Your task to perform on an android device: Open display settings Image 0: 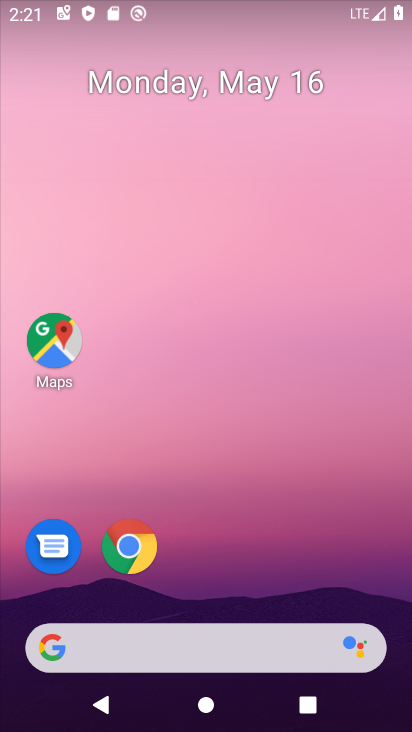
Step 0: drag from (241, 676) to (258, 349)
Your task to perform on an android device: Open display settings Image 1: 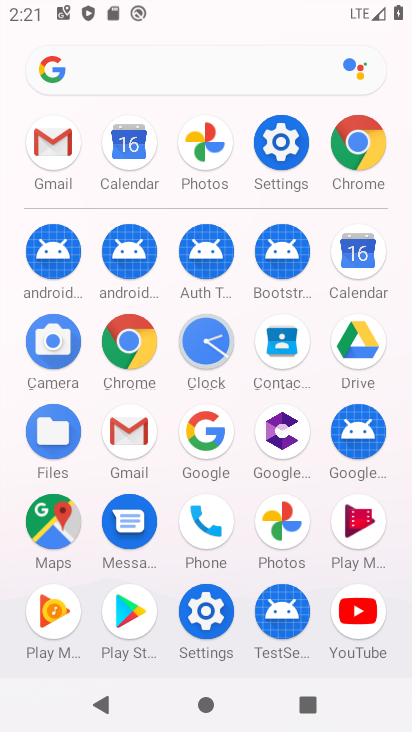
Step 1: click (288, 156)
Your task to perform on an android device: Open display settings Image 2: 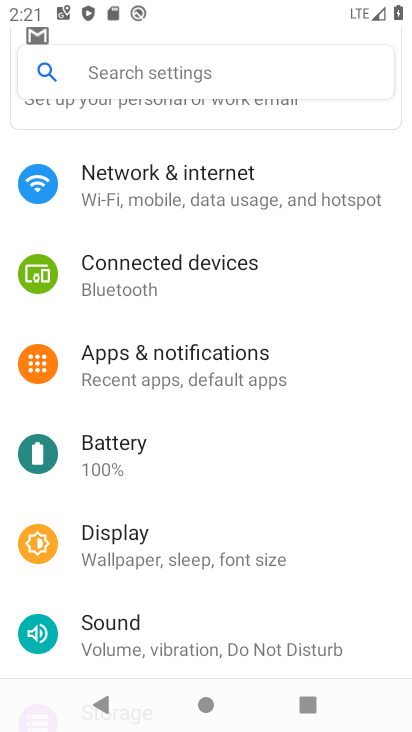
Step 2: click (117, 546)
Your task to perform on an android device: Open display settings Image 3: 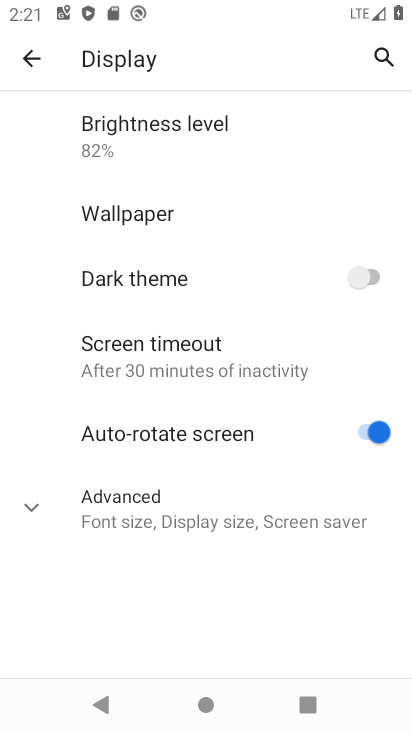
Step 3: task complete